Your task to perform on an android device: Open Reddit.com Image 0: 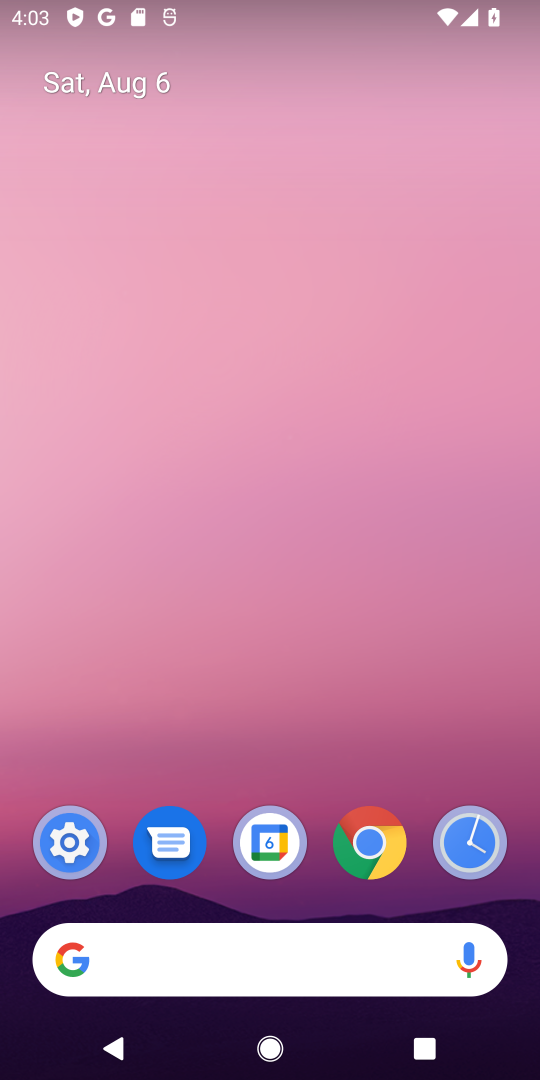
Step 0: click (368, 838)
Your task to perform on an android device: Open Reddit.com Image 1: 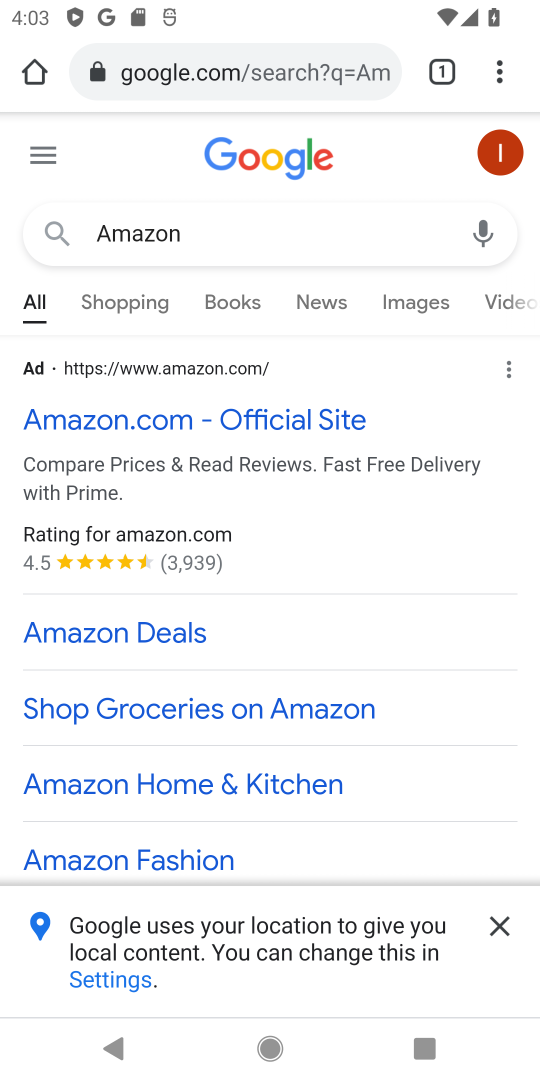
Step 1: click (341, 73)
Your task to perform on an android device: Open Reddit.com Image 2: 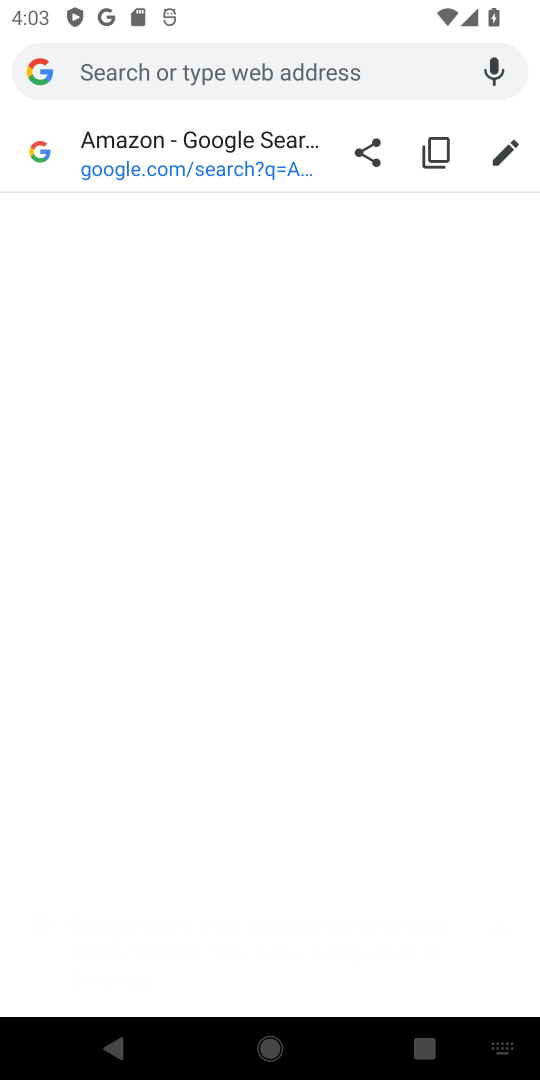
Step 2: type "Reddit.com"
Your task to perform on an android device: Open Reddit.com Image 3: 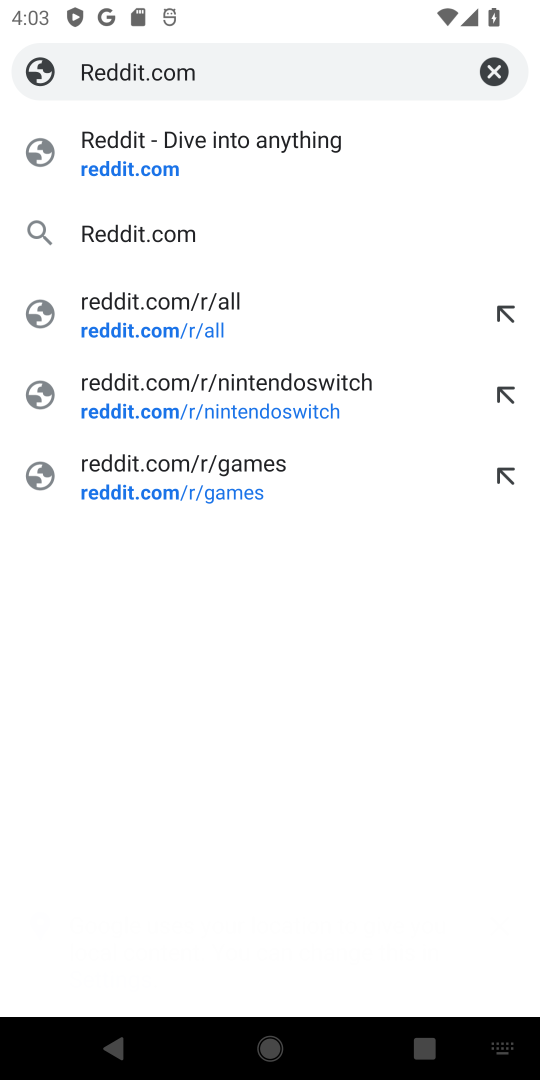
Step 3: click (102, 237)
Your task to perform on an android device: Open Reddit.com Image 4: 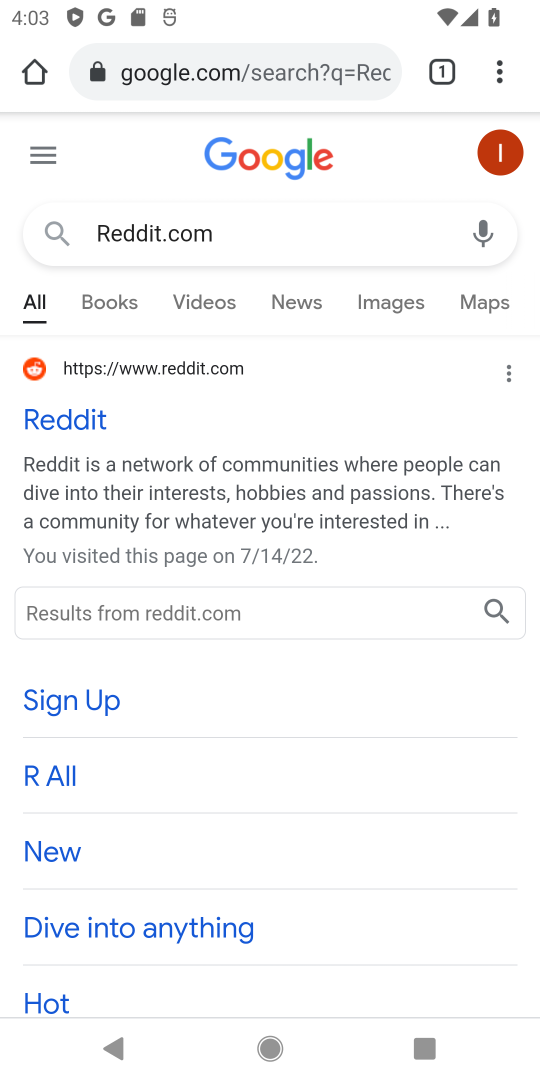
Step 4: task complete